Your task to perform on an android device: Go to sound settings Image 0: 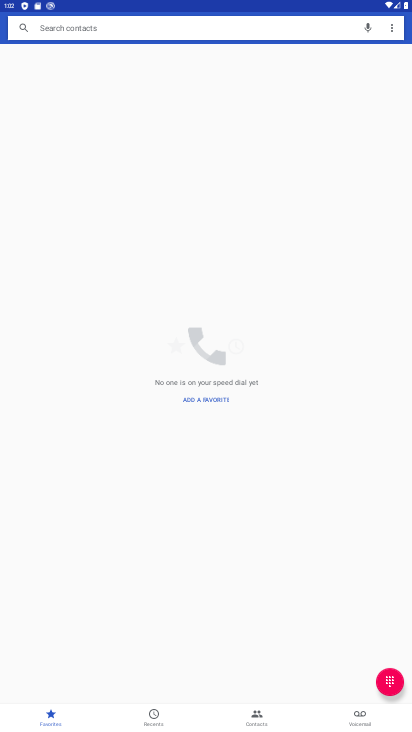
Step 0: press home button
Your task to perform on an android device: Go to sound settings Image 1: 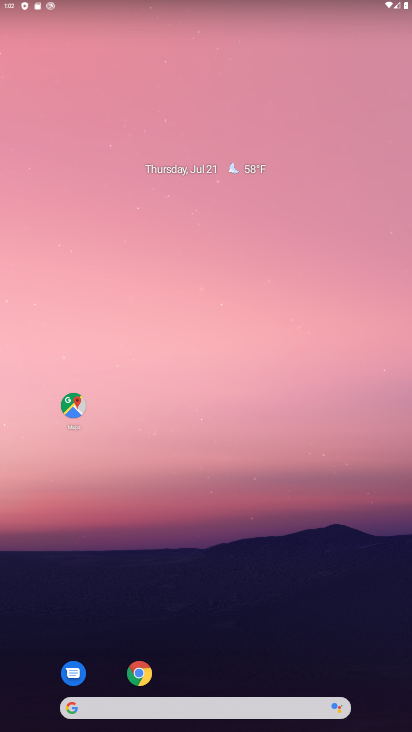
Step 1: drag from (242, 669) to (281, 171)
Your task to perform on an android device: Go to sound settings Image 2: 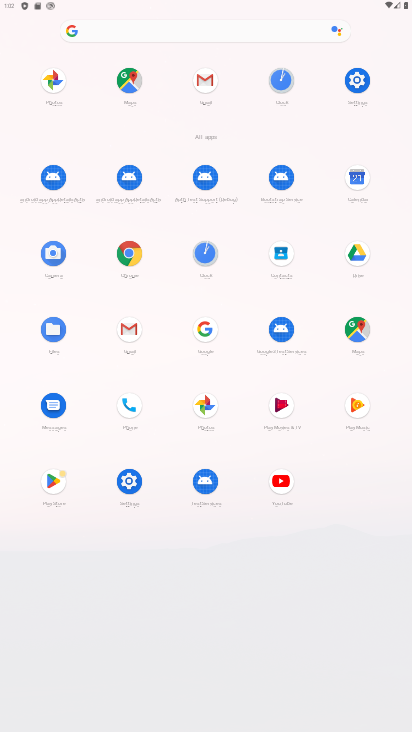
Step 2: click (352, 88)
Your task to perform on an android device: Go to sound settings Image 3: 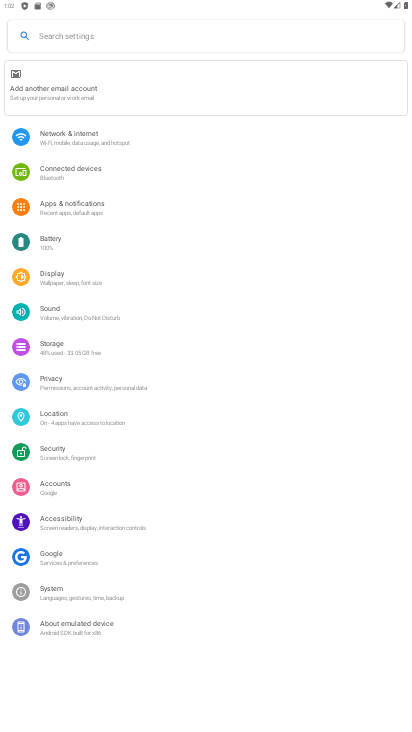
Step 3: click (79, 307)
Your task to perform on an android device: Go to sound settings Image 4: 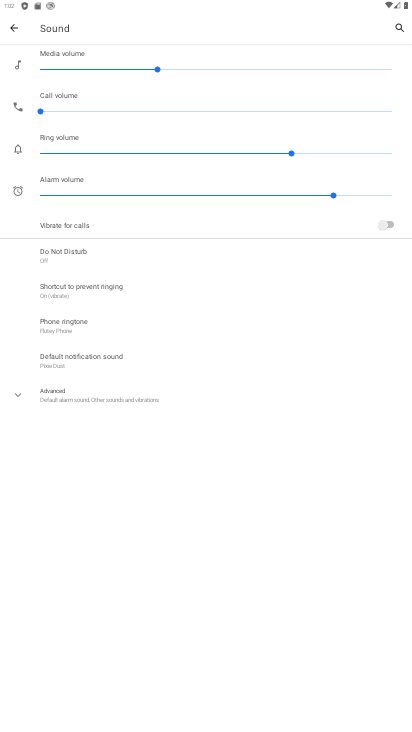
Step 4: task complete